Your task to perform on an android device: Open the phone app and click the voicemail tab. Image 0: 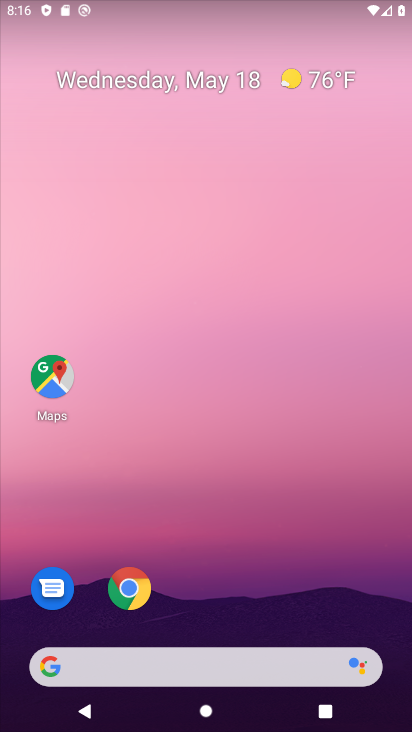
Step 0: drag from (336, 604) to (280, 34)
Your task to perform on an android device: Open the phone app and click the voicemail tab. Image 1: 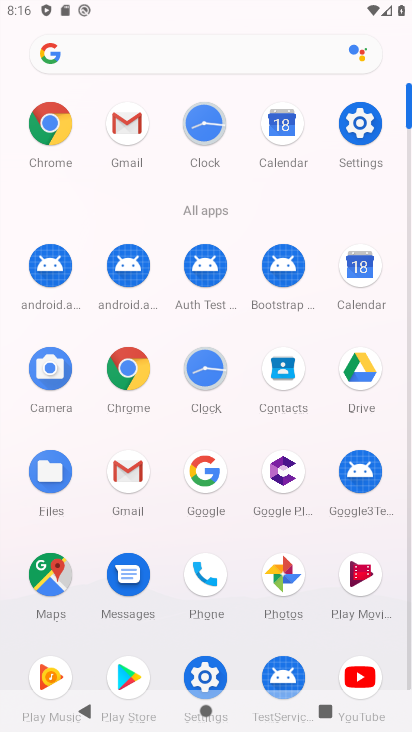
Step 1: click (203, 588)
Your task to perform on an android device: Open the phone app and click the voicemail tab. Image 2: 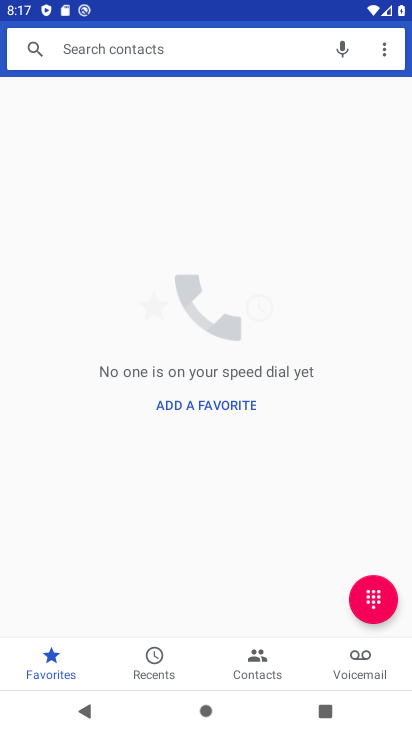
Step 2: click (348, 666)
Your task to perform on an android device: Open the phone app and click the voicemail tab. Image 3: 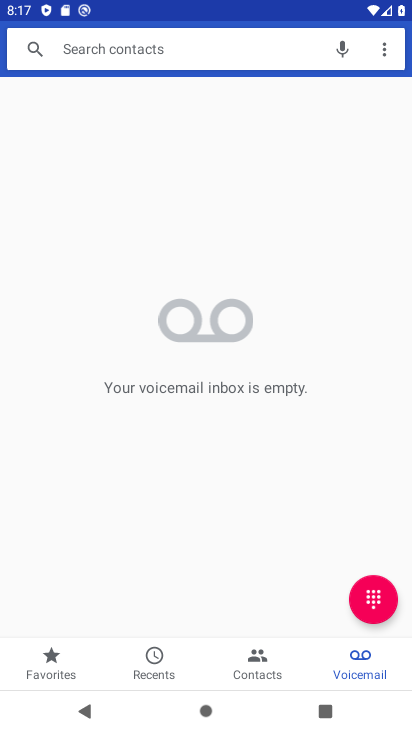
Step 3: task complete